Your task to perform on an android device: Set the phone to "Do not disturb". Image 0: 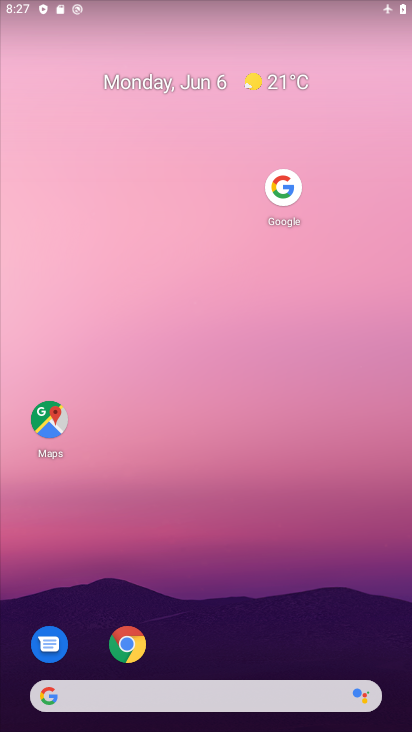
Step 0: drag from (226, 5) to (281, 460)
Your task to perform on an android device: Set the phone to "Do not disturb". Image 1: 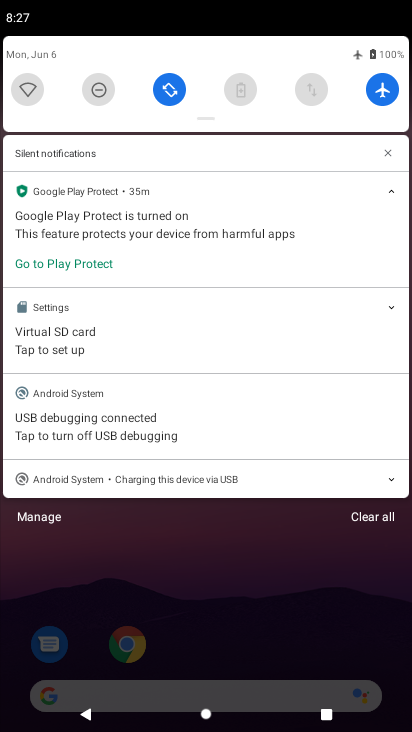
Step 1: click (103, 81)
Your task to perform on an android device: Set the phone to "Do not disturb". Image 2: 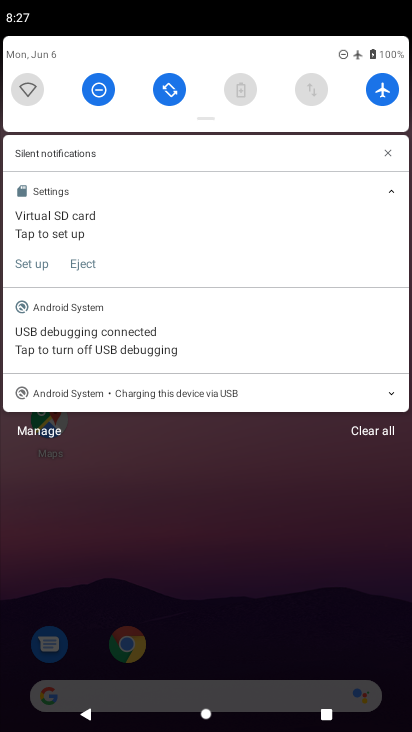
Step 2: task complete